Your task to perform on an android device: Open Yahoo.com Image 0: 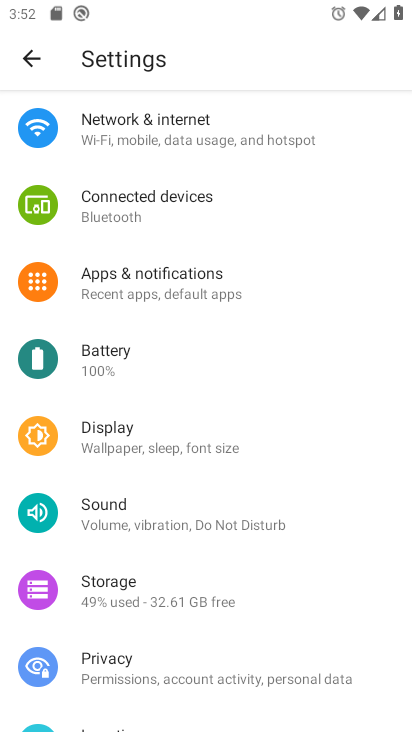
Step 0: press home button
Your task to perform on an android device: Open Yahoo.com Image 1: 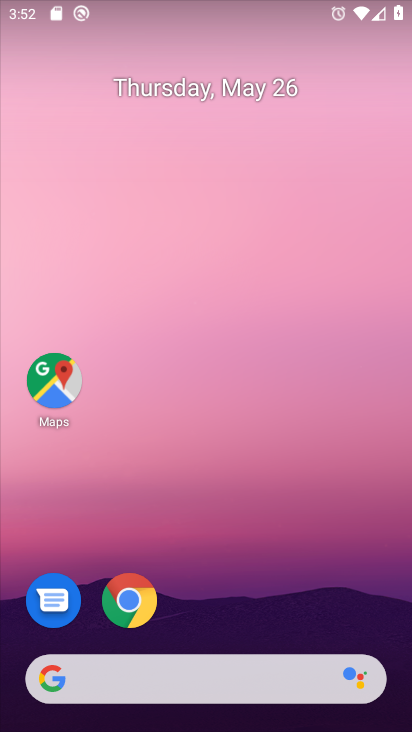
Step 1: click (125, 604)
Your task to perform on an android device: Open Yahoo.com Image 2: 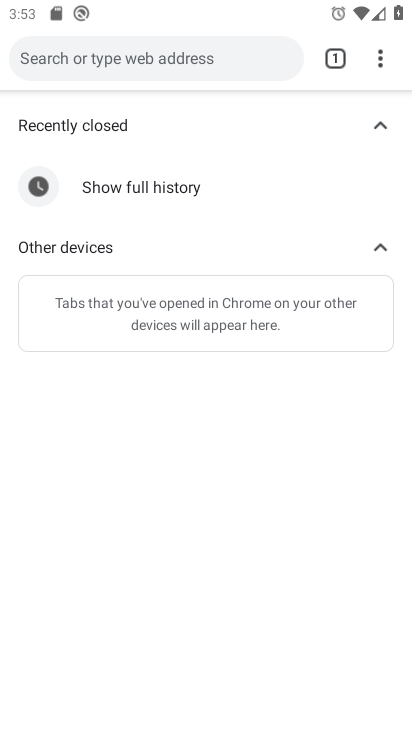
Step 2: click (141, 49)
Your task to perform on an android device: Open Yahoo.com Image 3: 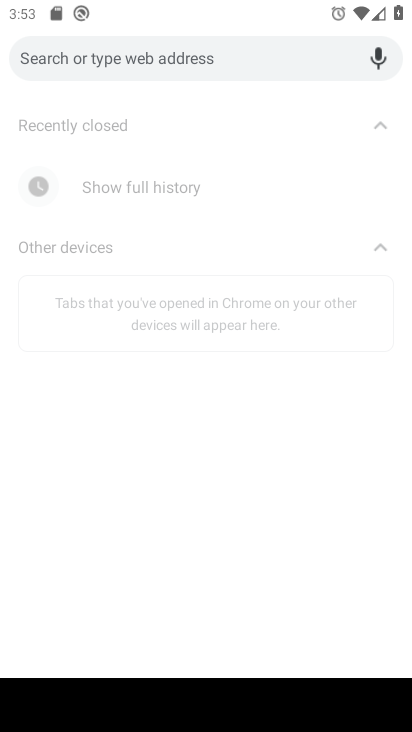
Step 3: type "yahoo.com"
Your task to perform on an android device: Open Yahoo.com Image 4: 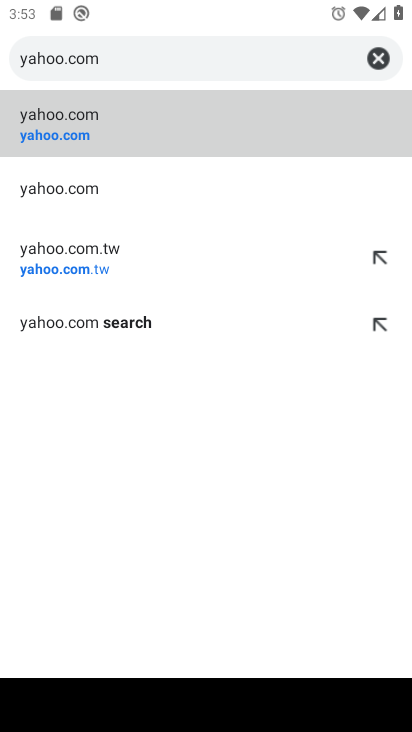
Step 4: click (158, 112)
Your task to perform on an android device: Open Yahoo.com Image 5: 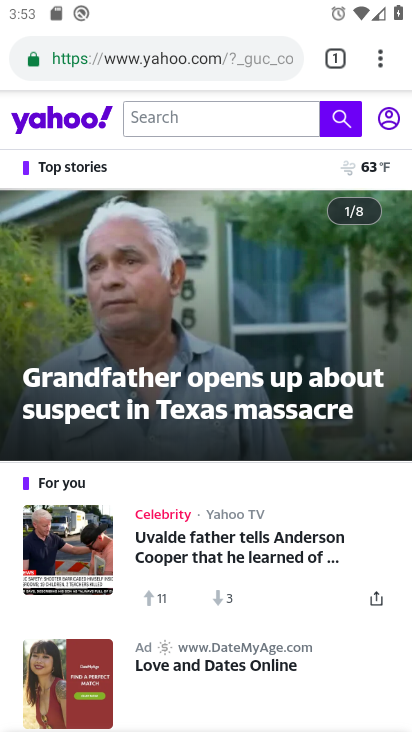
Step 5: task complete